Your task to perform on an android device: Open calendar and show me the first week of next month Image 0: 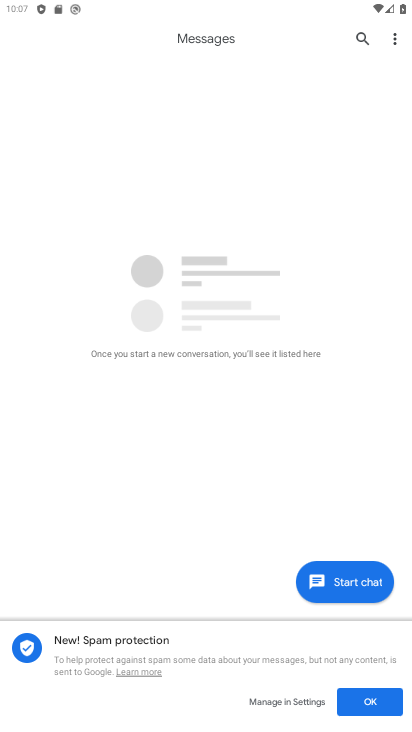
Step 0: press home button
Your task to perform on an android device: Open calendar and show me the first week of next month Image 1: 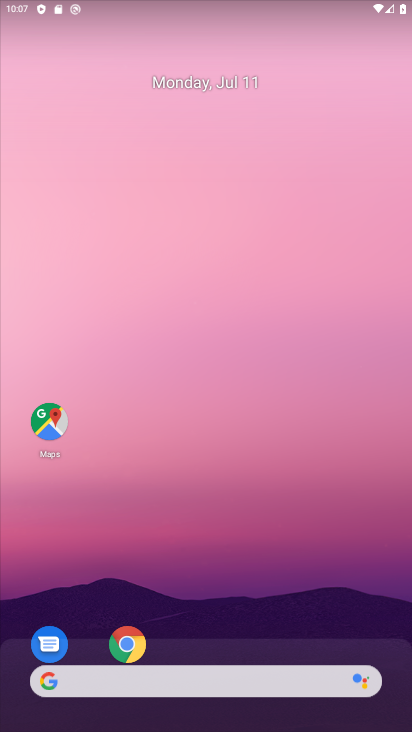
Step 1: drag from (176, 121) to (189, 22)
Your task to perform on an android device: Open calendar and show me the first week of next month Image 2: 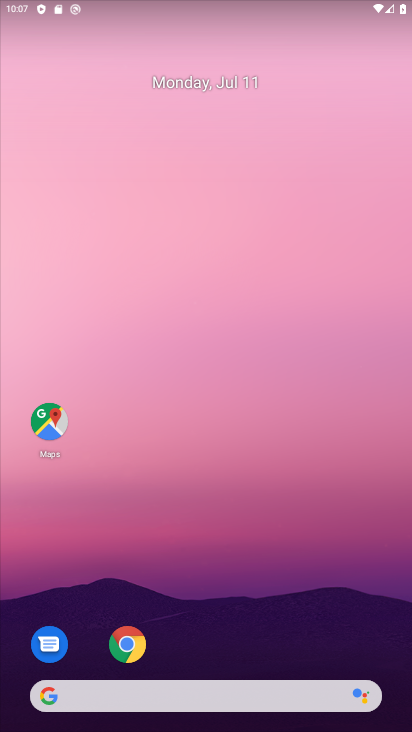
Step 2: drag from (192, 594) to (222, 61)
Your task to perform on an android device: Open calendar and show me the first week of next month Image 3: 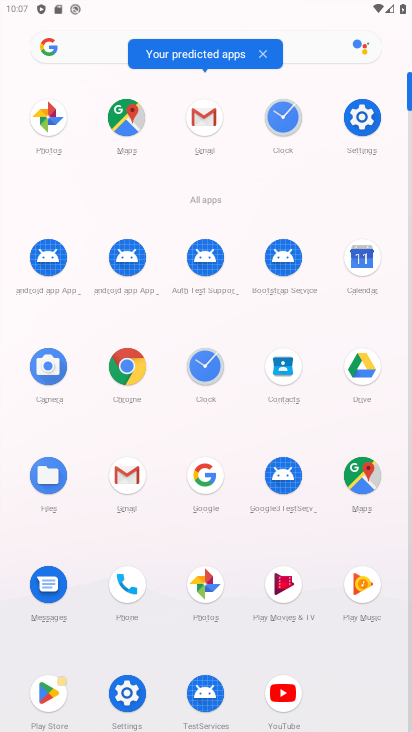
Step 3: click (354, 248)
Your task to perform on an android device: Open calendar and show me the first week of next month Image 4: 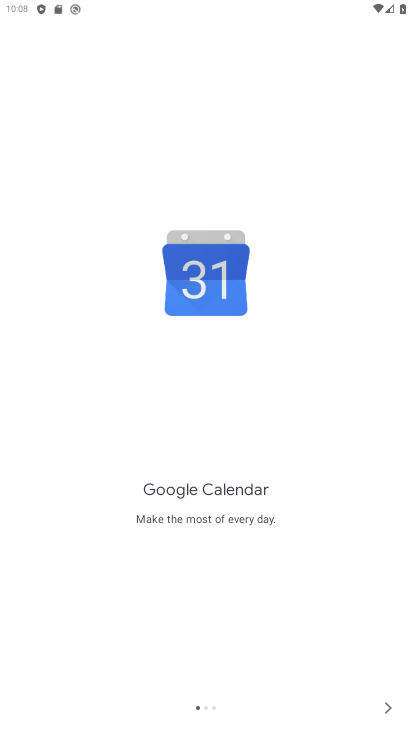
Step 4: click (381, 705)
Your task to perform on an android device: Open calendar and show me the first week of next month Image 5: 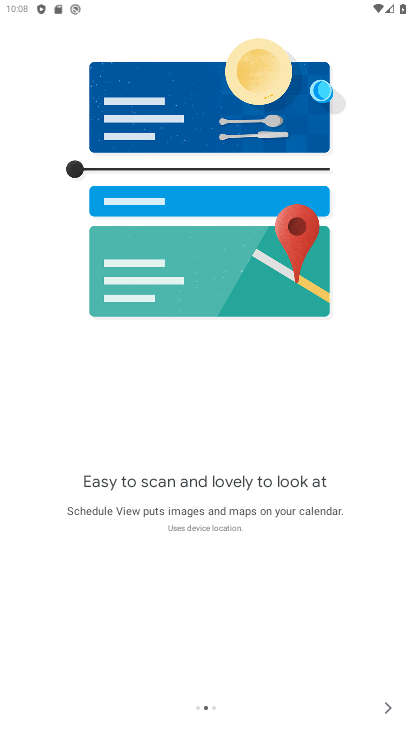
Step 5: click (385, 694)
Your task to perform on an android device: Open calendar and show me the first week of next month Image 6: 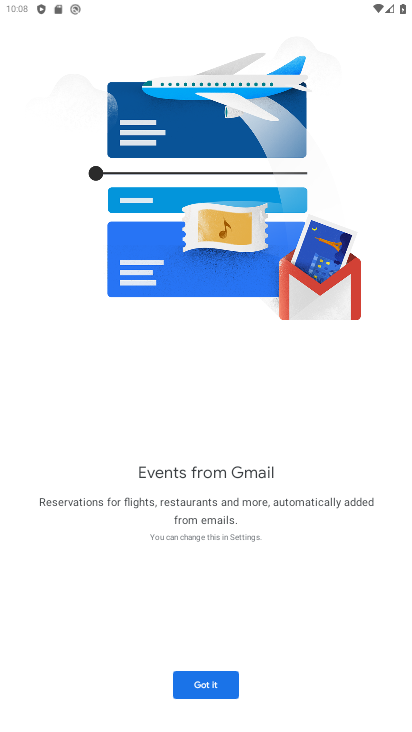
Step 6: click (209, 685)
Your task to perform on an android device: Open calendar and show me the first week of next month Image 7: 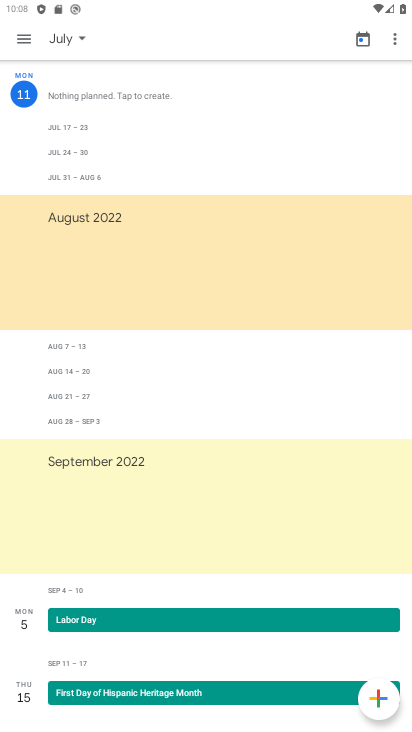
Step 7: click (19, 35)
Your task to perform on an android device: Open calendar and show me the first week of next month Image 8: 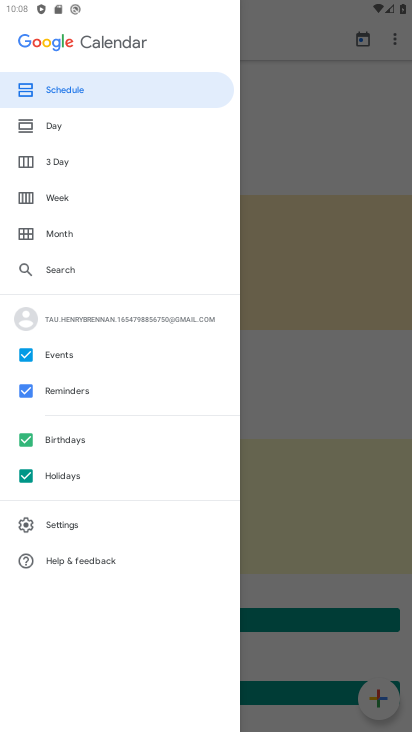
Step 8: click (52, 197)
Your task to perform on an android device: Open calendar and show me the first week of next month Image 9: 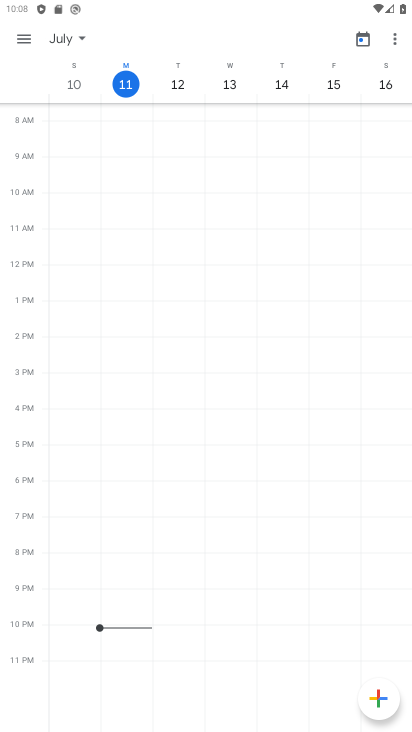
Step 9: task complete